Your task to perform on an android device: delete the emails in spam in the gmail app Image 0: 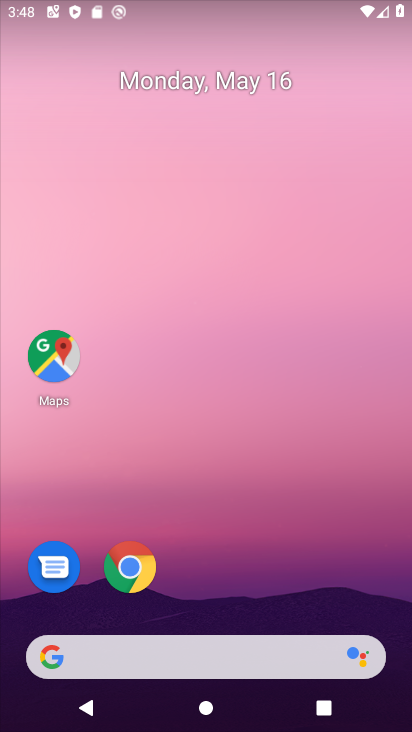
Step 0: drag from (239, 490) to (257, 0)
Your task to perform on an android device: delete the emails in spam in the gmail app Image 1: 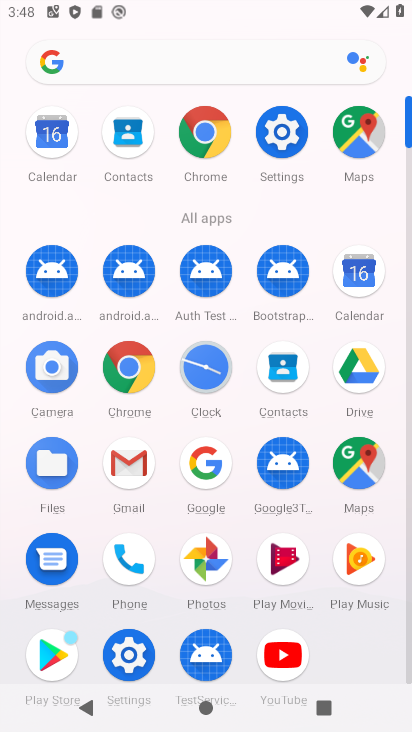
Step 1: click (123, 450)
Your task to perform on an android device: delete the emails in spam in the gmail app Image 2: 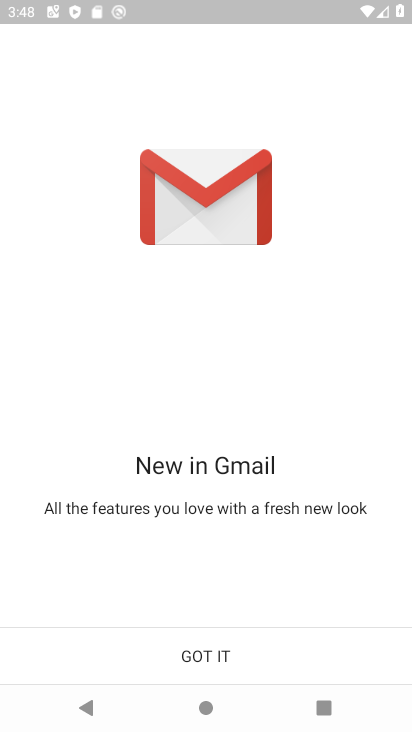
Step 2: click (229, 660)
Your task to perform on an android device: delete the emails in spam in the gmail app Image 3: 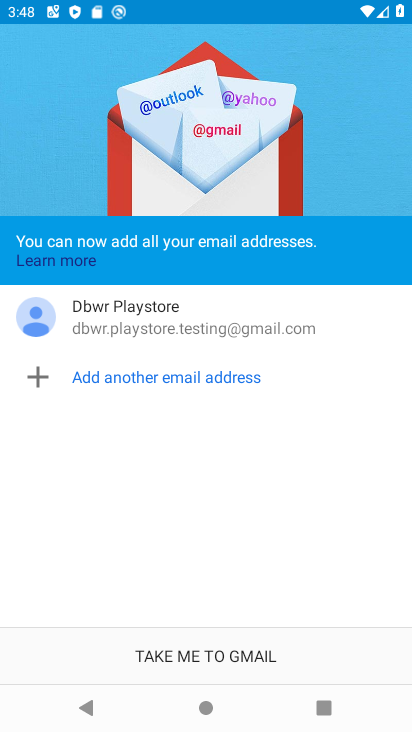
Step 3: click (229, 660)
Your task to perform on an android device: delete the emails in spam in the gmail app Image 4: 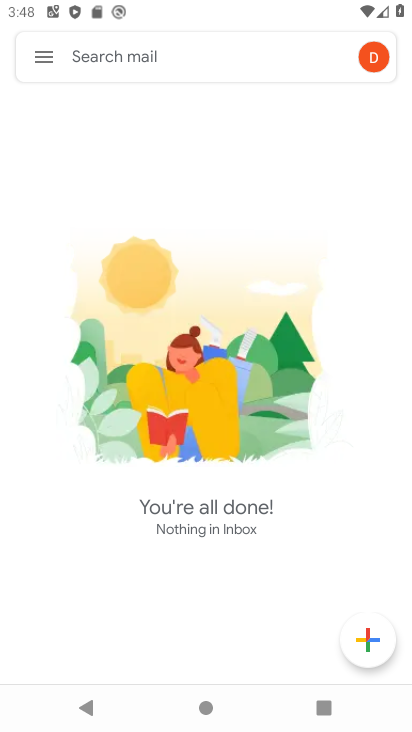
Step 4: click (43, 55)
Your task to perform on an android device: delete the emails in spam in the gmail app Image 5: 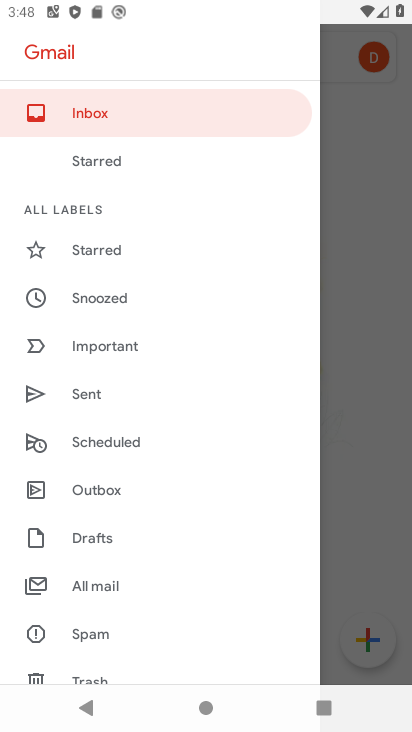
Step 5: click (88, 627)
Your task to perform on an android device: delete the emails in spam in the gmail app Image 6: 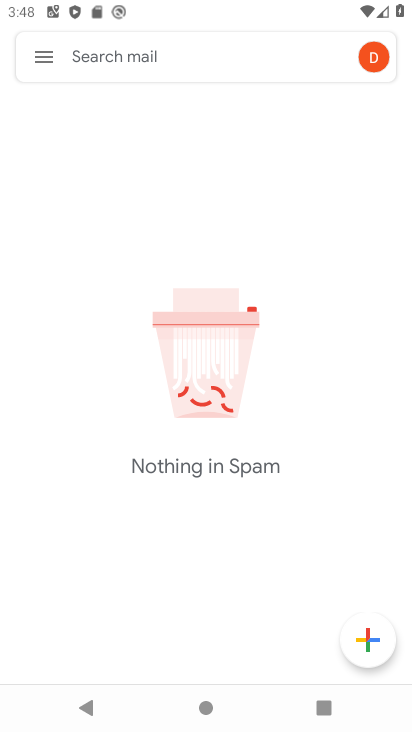
Step 6: task complete